Your task to perform on an android device: delete location history Image 0: 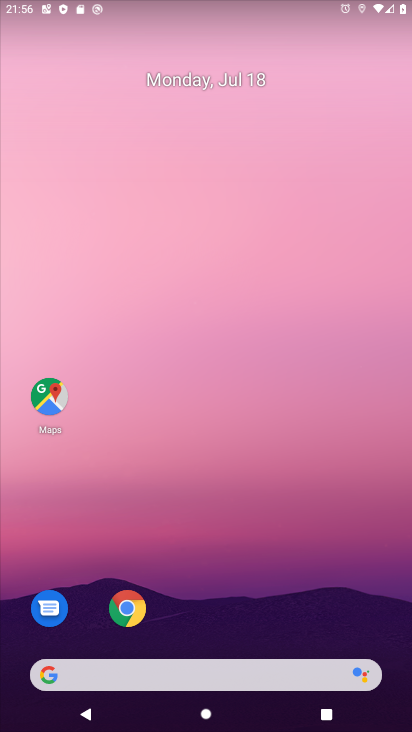
Step 0: drag from (15, 707) to (220, 161)
Your task to perform on an android device: delete location history Image 1: 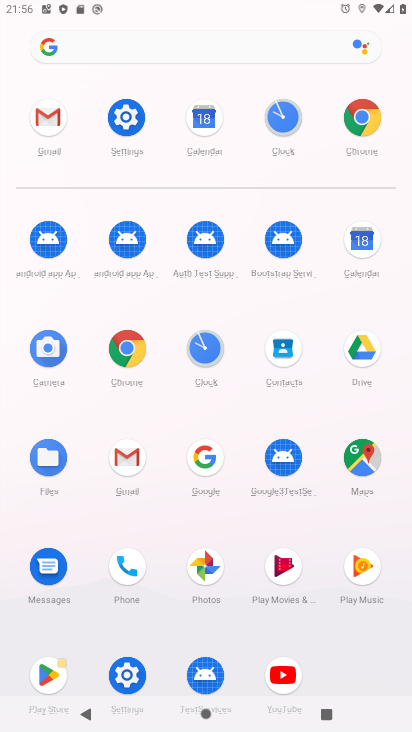
Step 1: click (127, 670)
Your task to perform on an android device: delete location history Image 2: 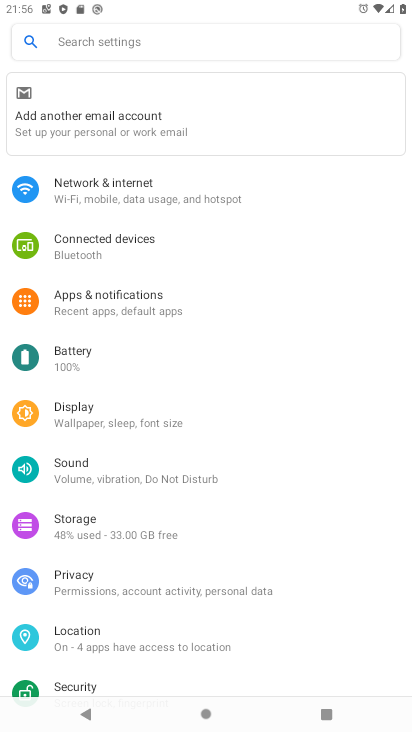
Step 2: click (102, 638)
Your task to perform on an android device: delete location history Image 3: 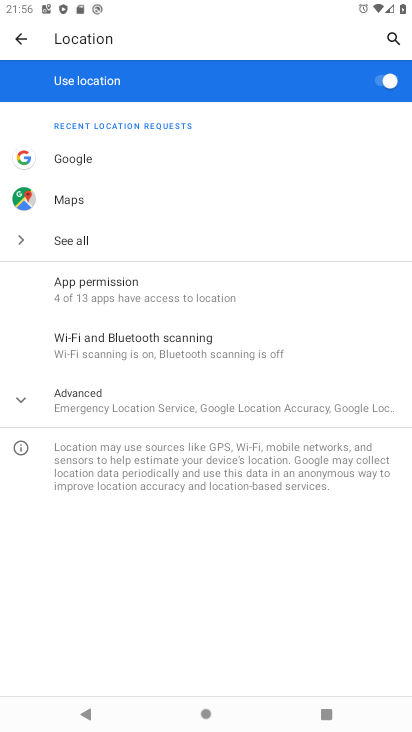
Step 3: click (119, 394)
Your task to perform on an android device: delete location history Image 4: 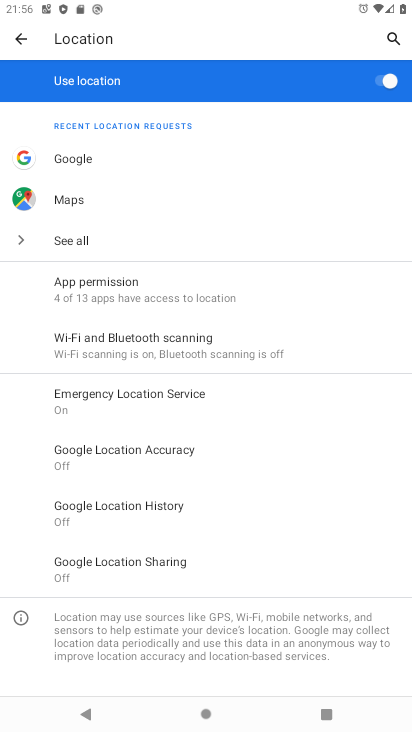
Step 4: click (112, 525)
Your task to perform on an android device: delete location history Image 5: 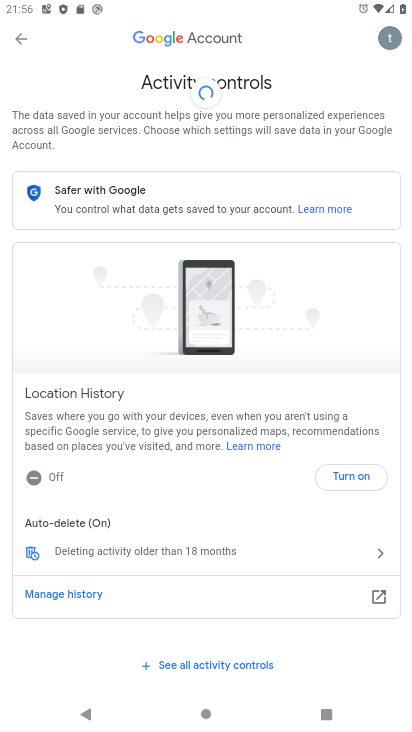
Step 5: click (274, 585)
Your task to perform on an android device: delete location history Image 6: 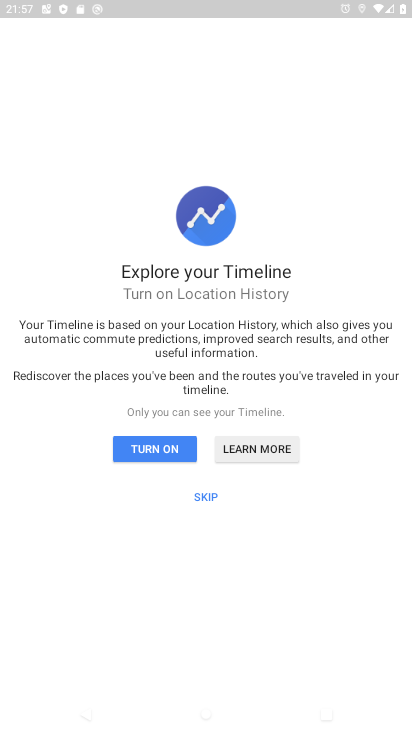
Step 6: click (217, 501)
Your task to perform on an android device: delete location history Image 7: 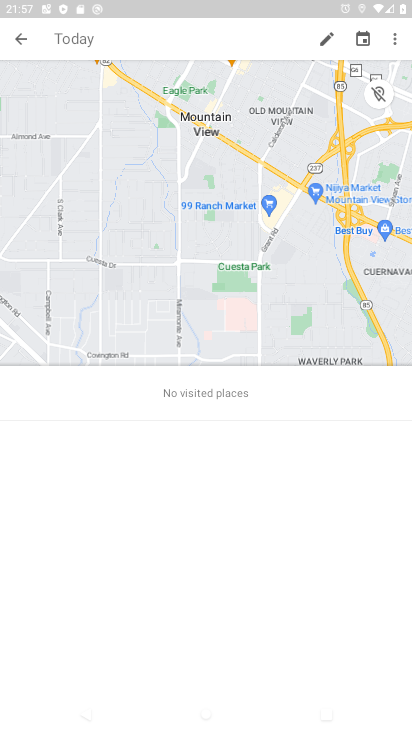
Step 7: task complete